Your task to perform on an android device: Look up the best rated power drills on Lowes.com Image 0: 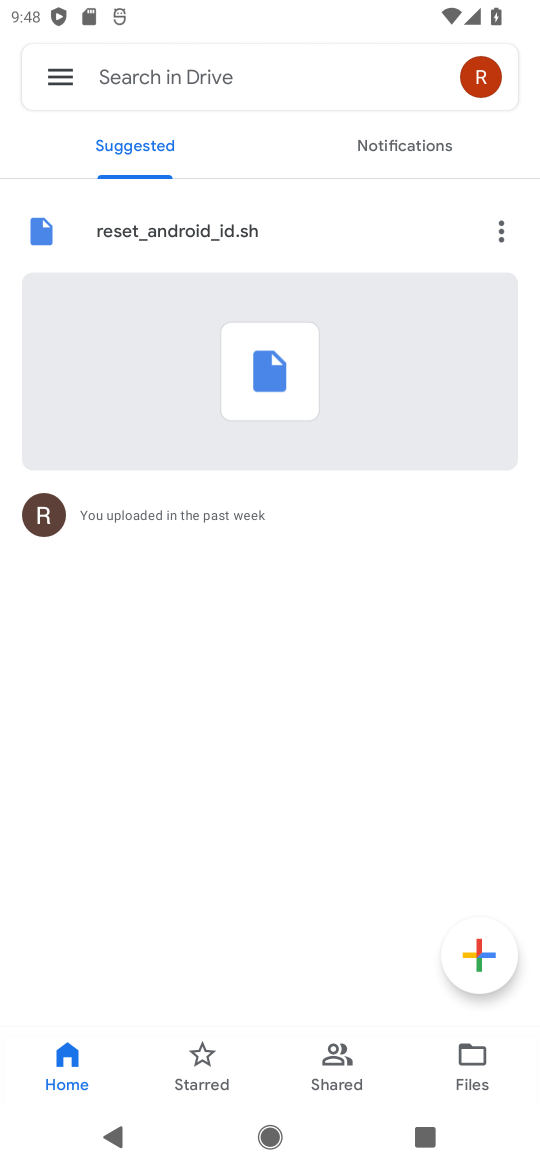
Step 0: task complete